Your task to perform on an android device: Is it going to rain today? Image 0: 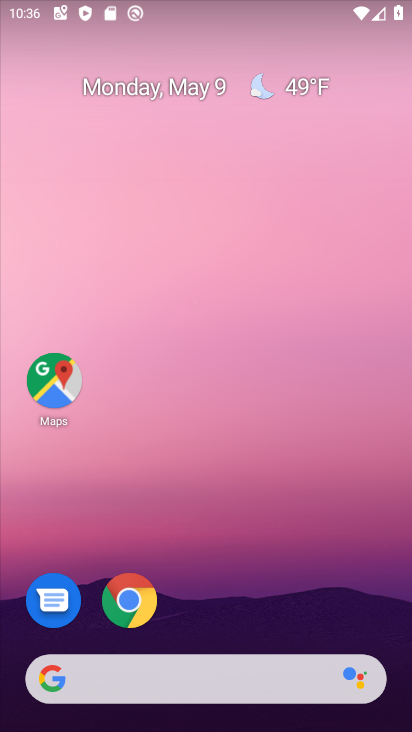
Step 0: drag from (363, 619) to (309, 232)
Your task to perform on an android device: Is it going to rain today? Image 1: 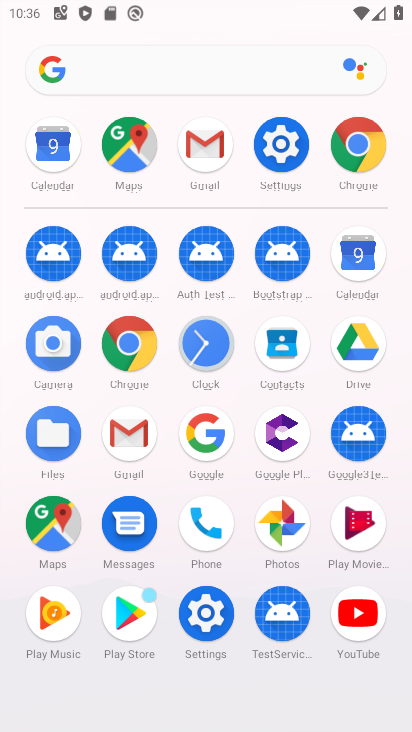
Step 1: click (135, 352)
Your task to perform on an android device: Is it going to rain today? Image 2: 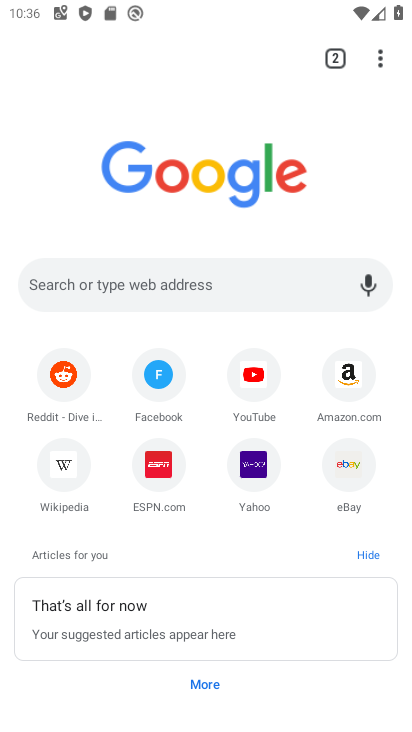
Step 2: click (221, 288)
Your task to perform on an android device: Is it going to rain today? Image 3: 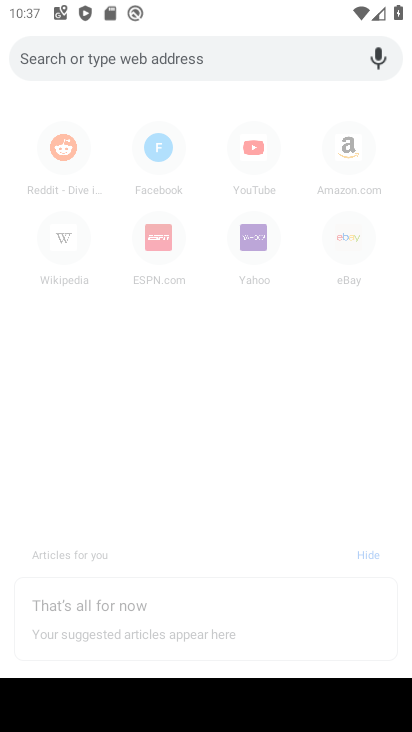
Step 3: type "is it going to rain today"
Your task to perform on an android device: Is it going to rain today? Image 4: 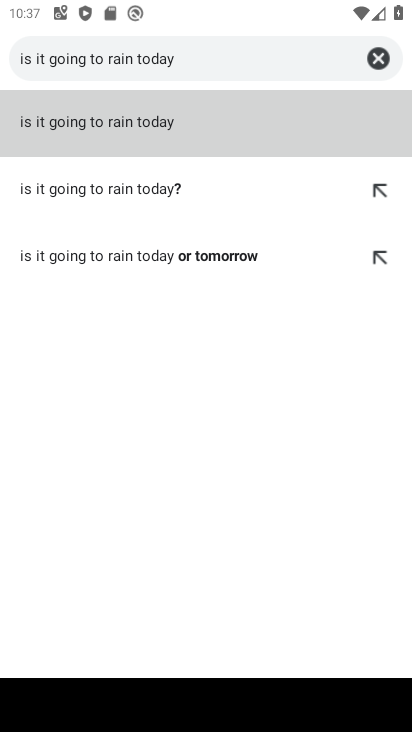
Step 4: click (128, 121)
Your task to perform on an android device: Is it going to rain today? Image 5: 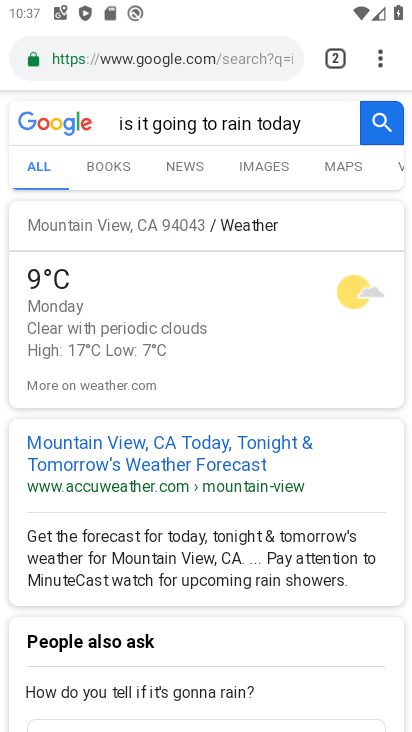
Step 5: task complete